Your task to perform on an android device: Do I have any events this weekend? Image 0: 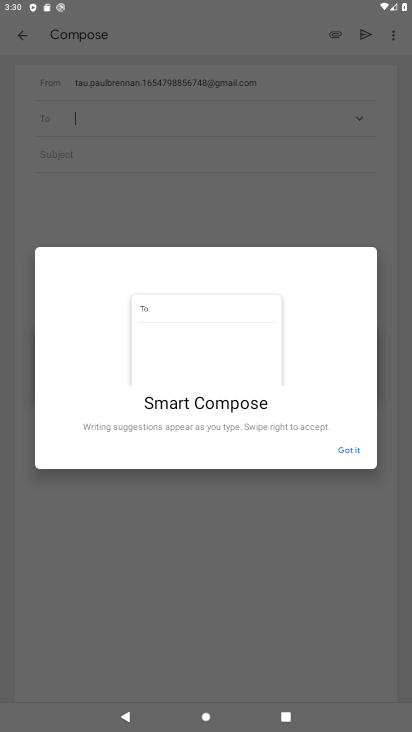
Step 0: press home button
Your task to perform on an android device: Do I have any events this weekend? Image 1: 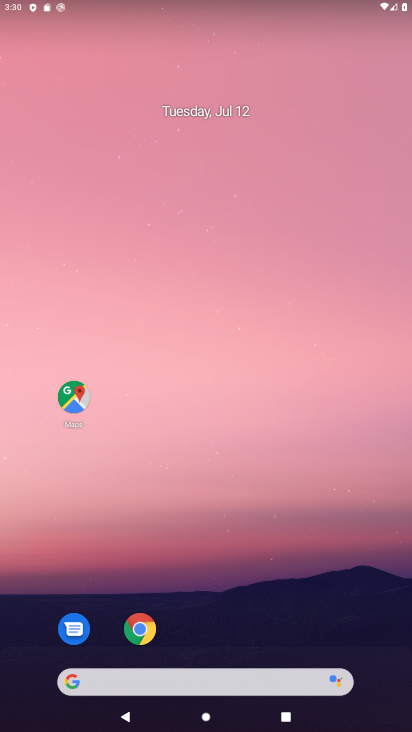
Step 1: drag from (306, 640) to (298, 69)
Your task to perform on an android device: Do I have any events this weekend? Image 2: 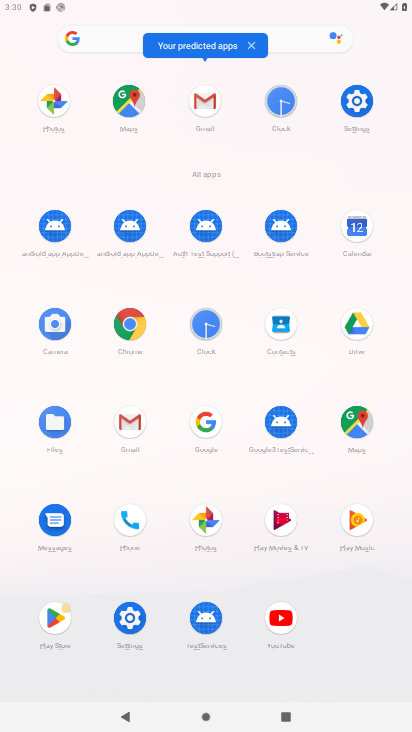
Step 2: click (344, 222)
Your task to perform on an android device: Do I have any events this weekend? Image 3: 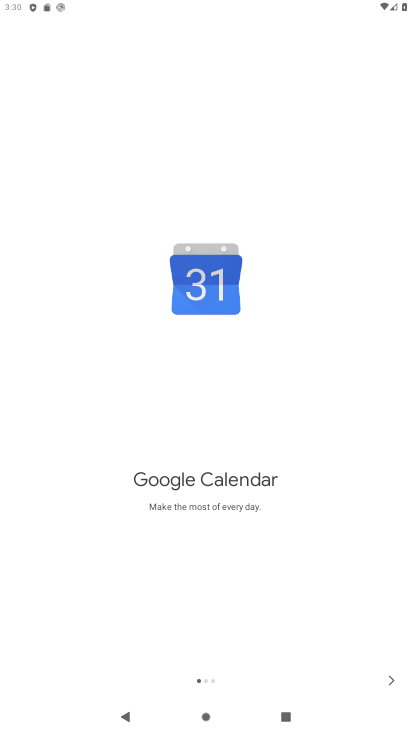
Step 3: click (407, 686)
Your task to perform on an android device: Do I have any events this weekend? Image 4: 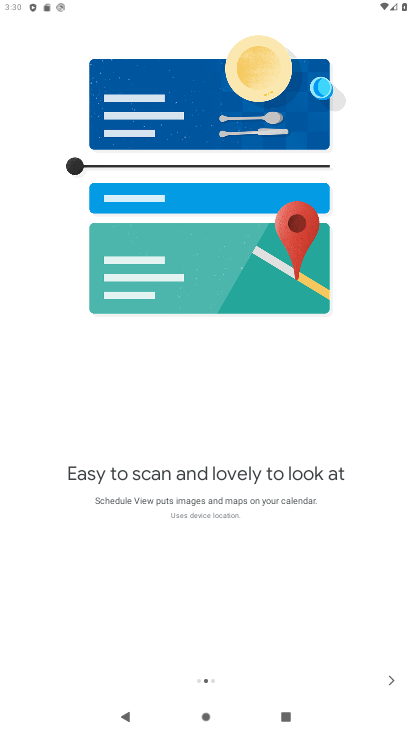
Step 4: click (399, 681)
Your task to perform on an android device: Do I have any events this weekend? Image 5: 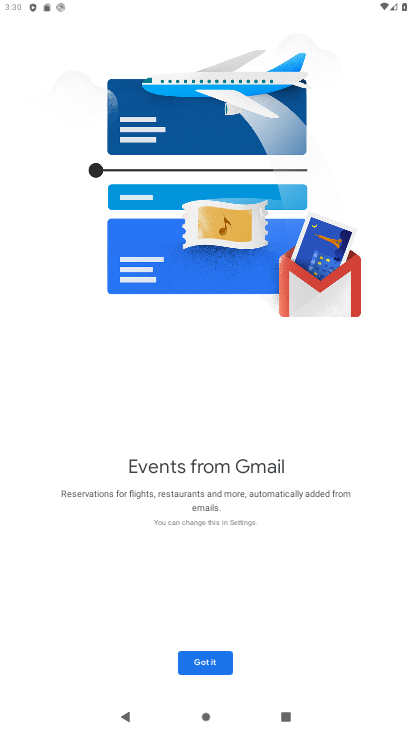
Step 5: click (215, 666)
Your task to perform on an android device: Do I have any events this weekend? Image 6: 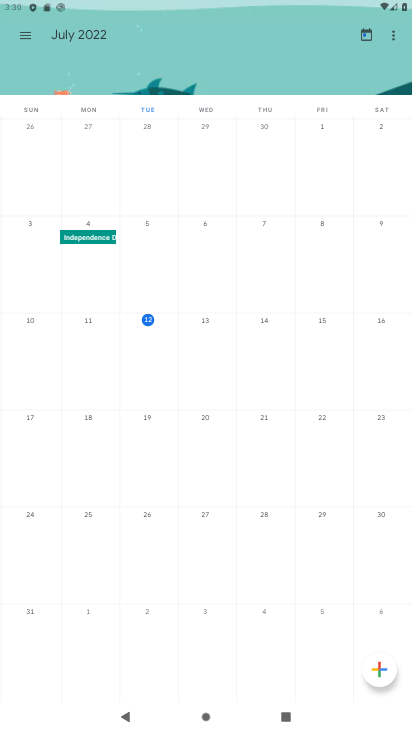
Step 6: click (22, 35)
Your task to perform on an android device: Do I have any events this weekend? Image 7: 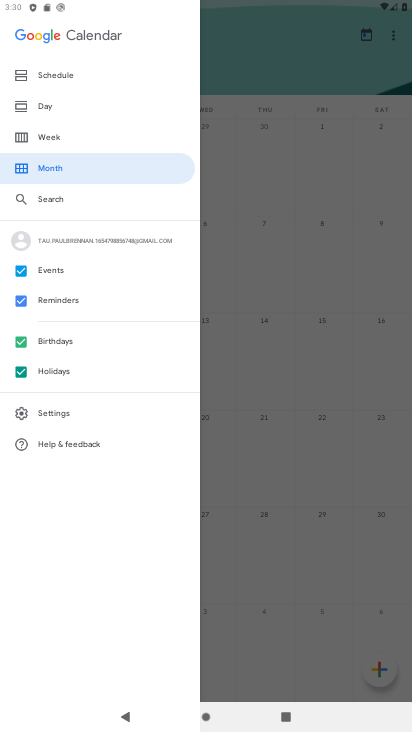
Step 7: click (60, 145)
Your task to perform on an android device: Do I have any events this weekend? Image 8: 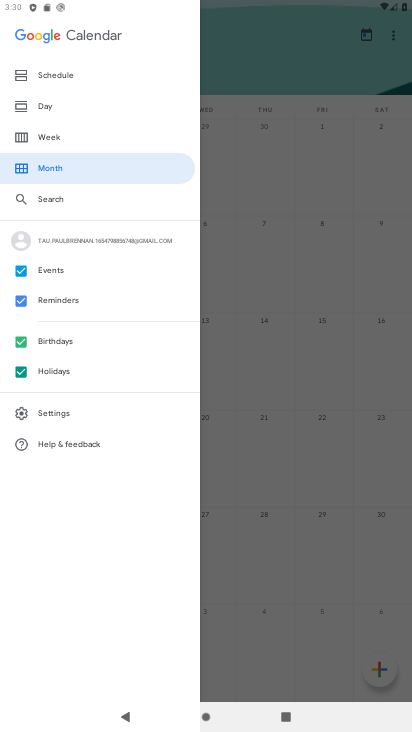
Step 8: click (76, 130)
Your task to perform on an android device: Do I have any events this weekend? Image 9: 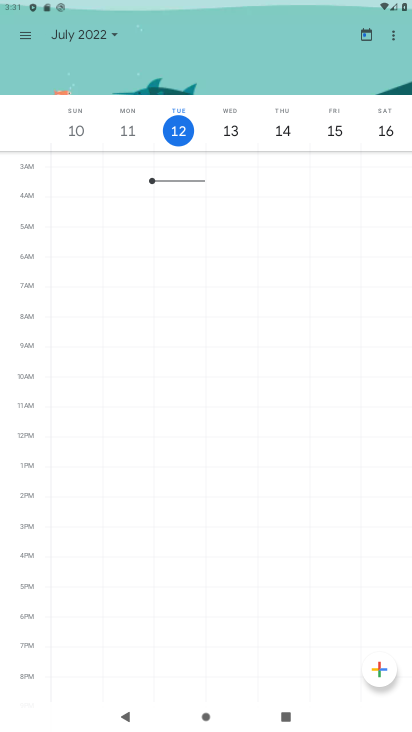
Step 9: task complete